Your task to perform on an android device: change timer sound Image 0: 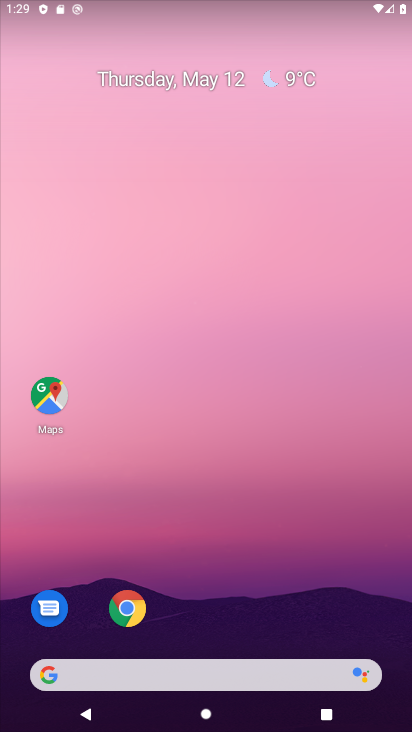
Step 0: drag from (237, 604) to (156, 194)
Your task to perform on an android device: change timer sound Image 1: 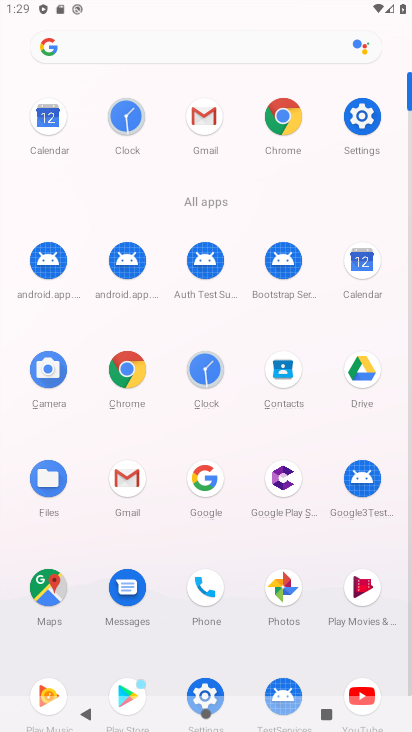
Step 1: click (212, 380)
Your task to perform on an android device: change timer sound Image 2: 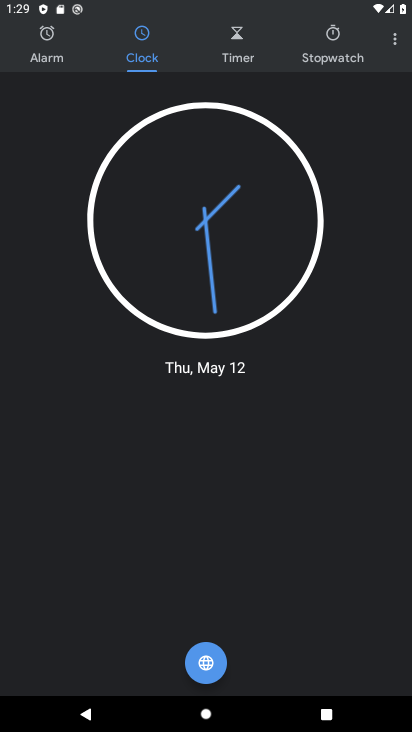
Step 2: click (394, 39)
Your task to perform on an android device: change timer sound Image 3: 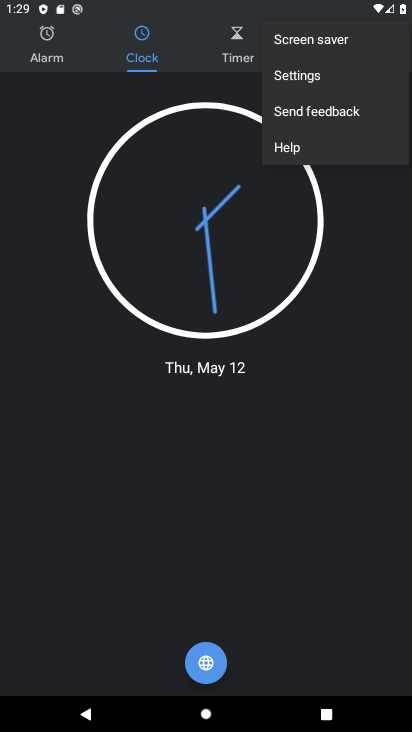
Step 3: click (300, 77)
Your task to perform on an android device: change timer sound Image 4: 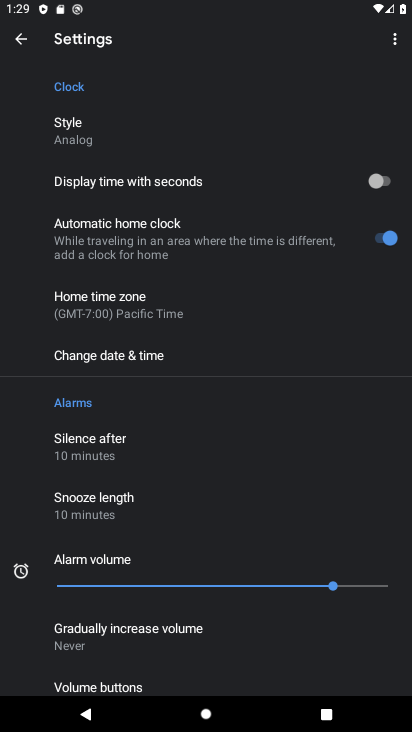
Step 4: drag from (105, 633) to (100, 278)
Your task to perform on an android device: change timer sound Image 5: 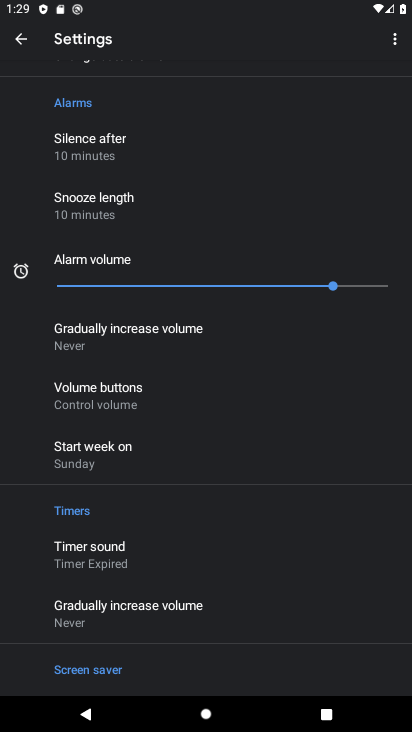
Step 5: click (104, 557)
Your task to perform on an android device: change timer sound Image 6: 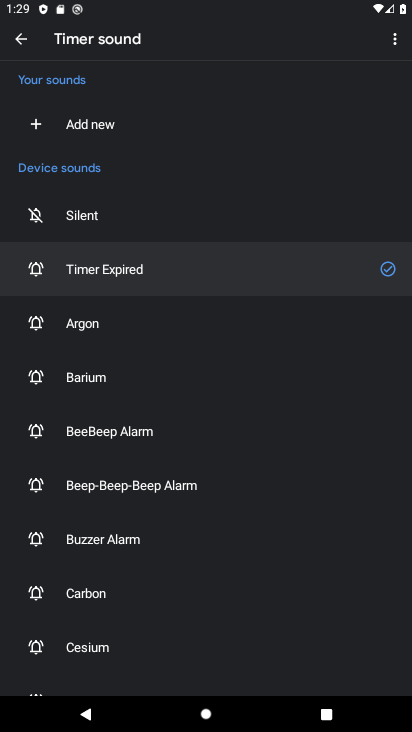
Step 6: click (89, 649)
Your task to perform on an android device: change timer sound Image 7: 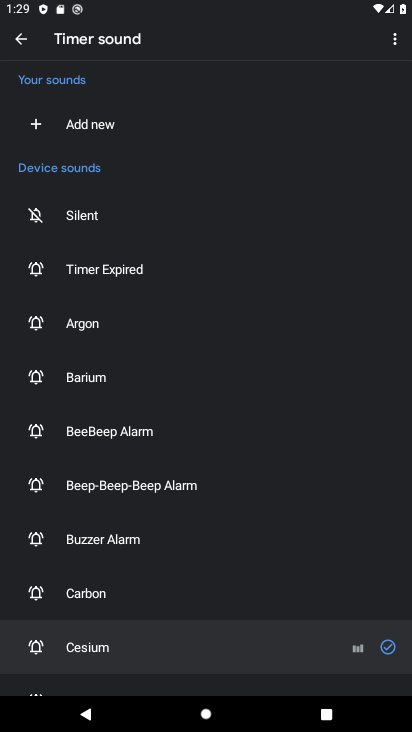
Step 7: task complete